Your task to perform on an android device: open app "Clock" Image 0: 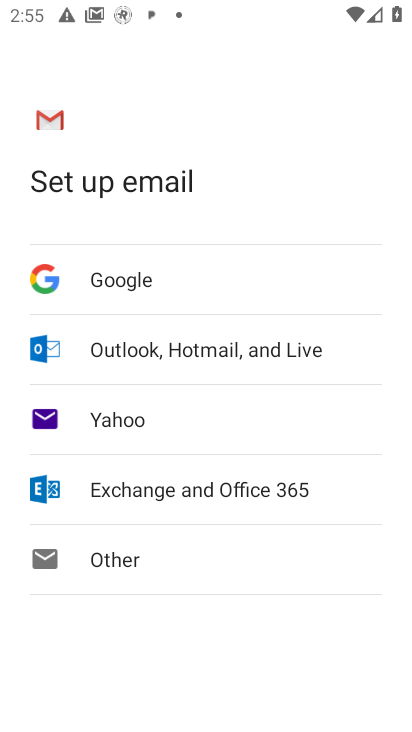
Step 0: press back button
Your task to perform on an android device: open app "Clock" Image 1: 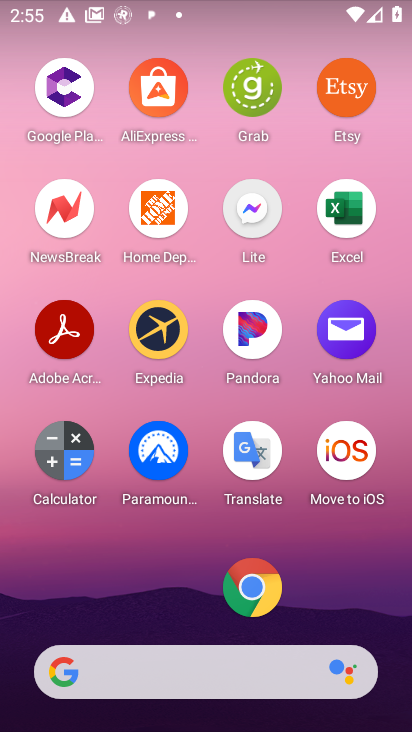
Step 1: drag from (199, 401) to (216, 200)
Your task to perform on an android device: open app "Clock" Image 2: 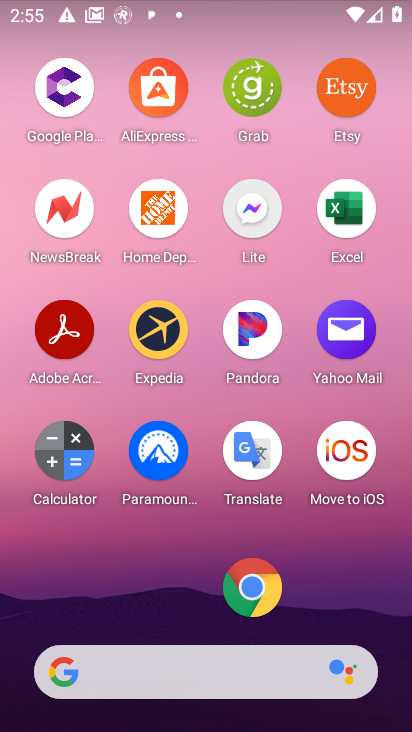
Step 2: drag from (178, 605) to (210, 165)
Your task to perform on an android device: open app "Clock" Image 3: 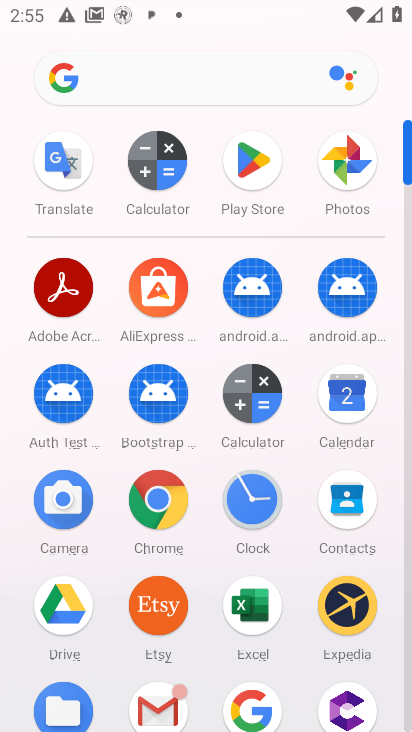
Step 3: click (248, 172)
Your task to perform on an android device: open app "Clock" Image 4: 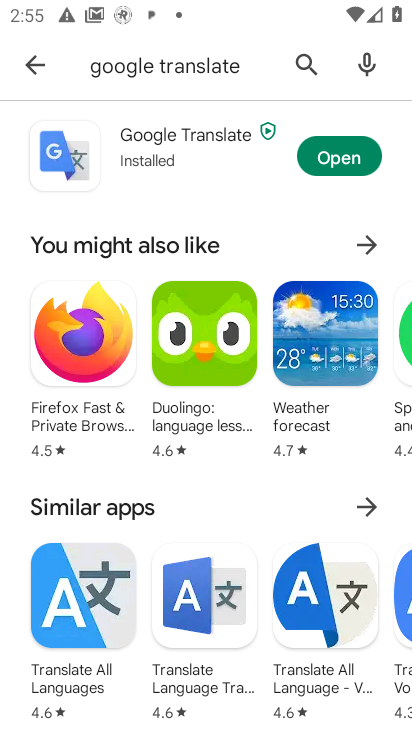
Step 4: click (296, 57)
Your task to perform on an android device: open app "Clock" Image 5: 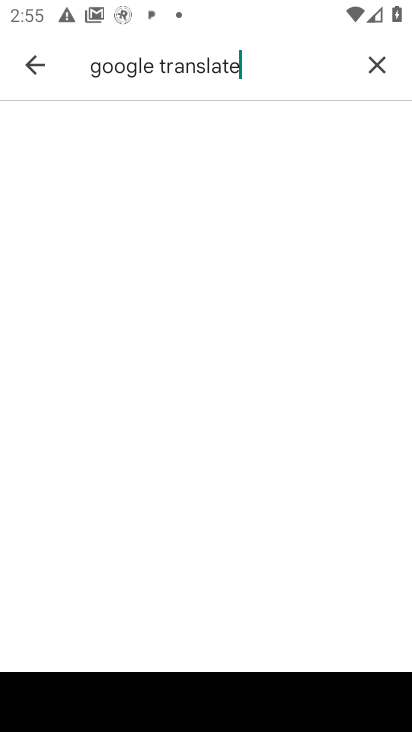
Step 5: click (381, 55)
Your task to perform on an android device: open app "Clock" Image 6: 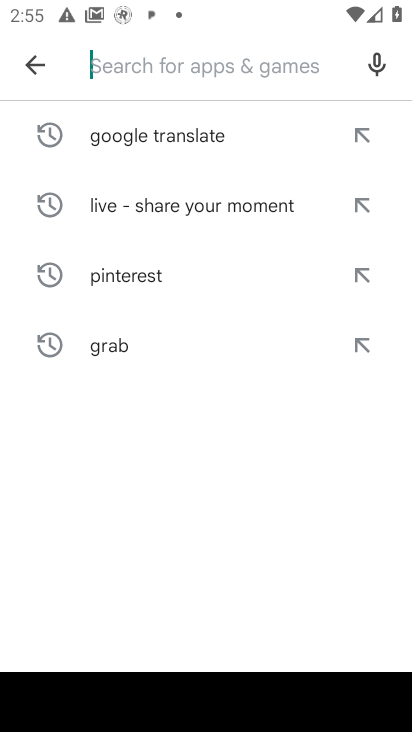
Step 6: type "Clock"
Your task to perform on an android device: open app "Clock" Image 7: 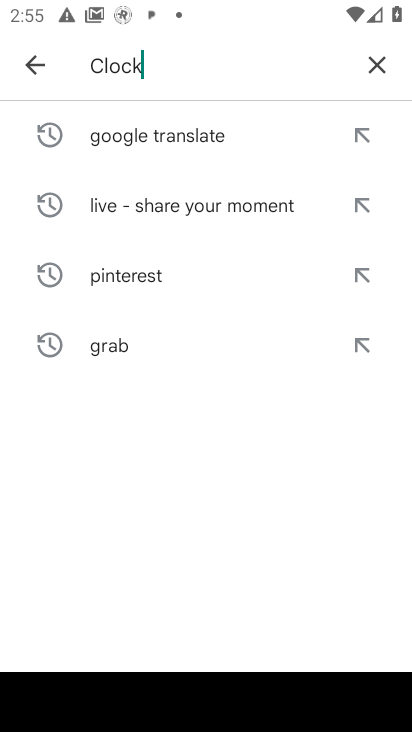
Step 7: type ""
Your task to perform on an android device: open app "Clock" Image 8: 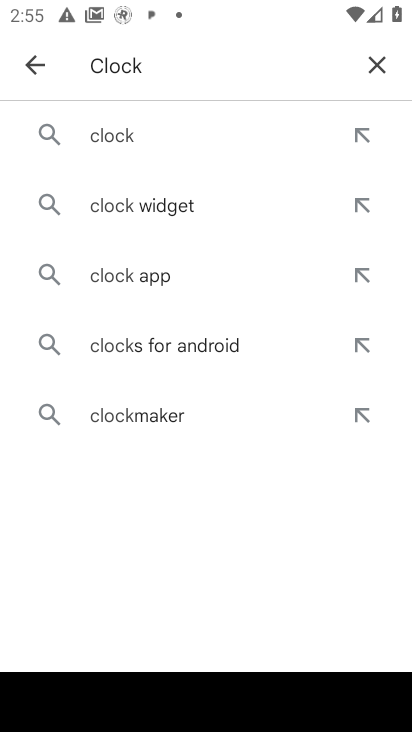
Step 8: click (140, 131)
Your task to perform on an android device: open app "Clock" Image 9: 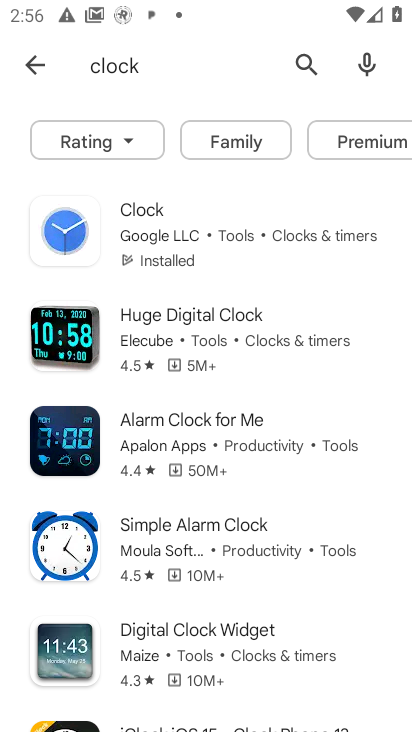
Step 9: click (196, 230)
Your task to perform on an android device: open app "Clock" Image 10: 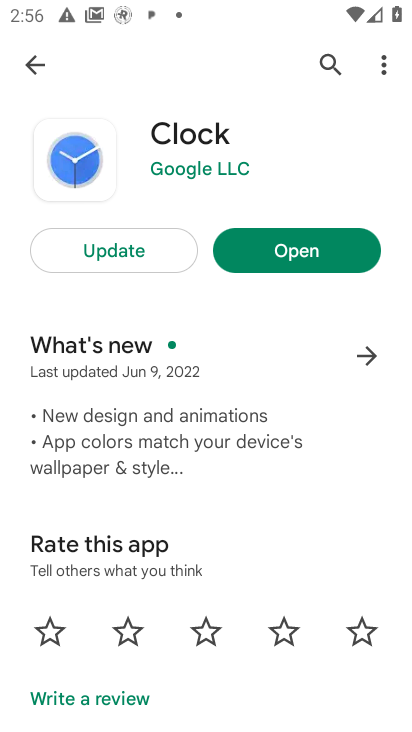
Step 10: click (260, 259)
Your task to perform on an android device: open app "Clock" Image 11: 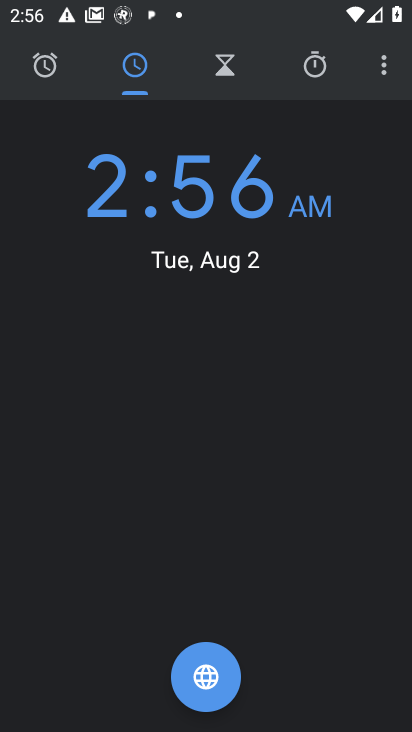
Step 11: task complete